Your task to perform on an android device: Do I have any events this weekend? Image 0: 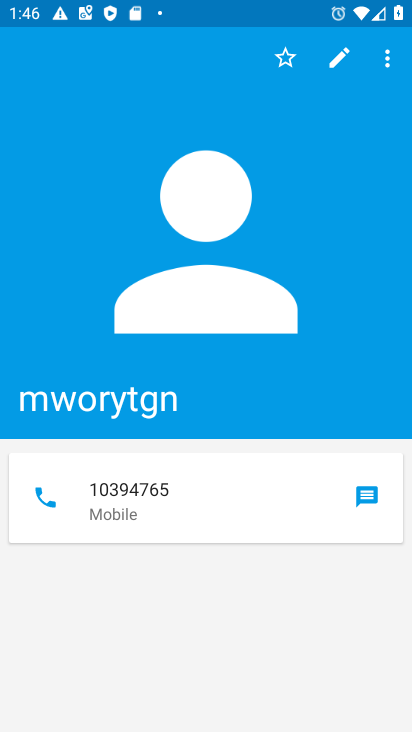
Step 0: press home button
Your task to perform on an android device: Do I have any events this weekend? Image 1: 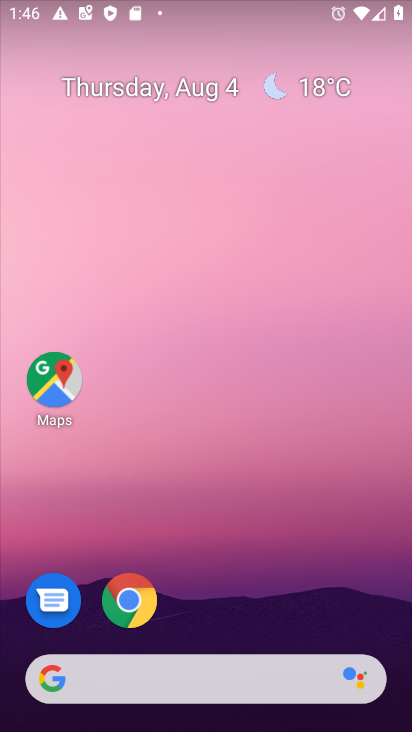
Step 1: drag from (99, 687) to (252, 199)
Your task to perform on an android device: Do I have any events this weekend? Image 2: 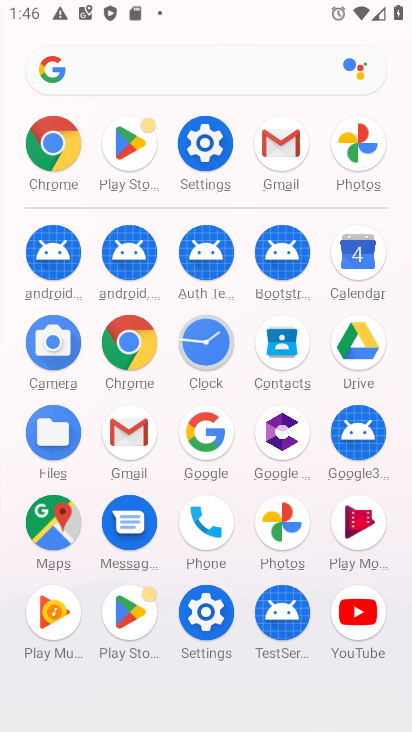
Step 2: click (362, 263)
Your task to perform on an android device: Do I have any events this weekend? Image 3: 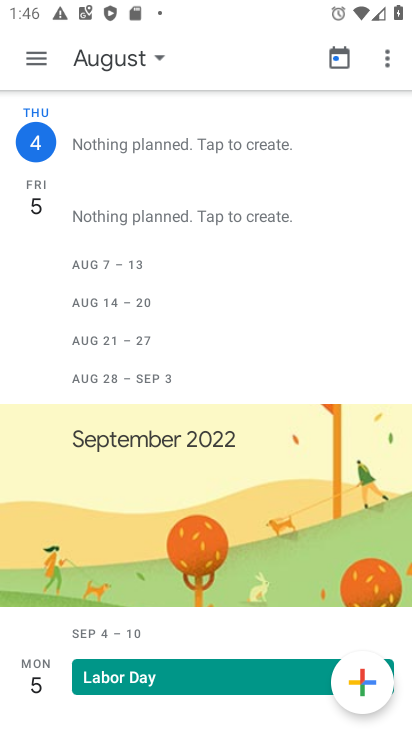
Step 3: click (126, 56)
Your task to perform on an android device: Do I have any events this weekend? Image 4: 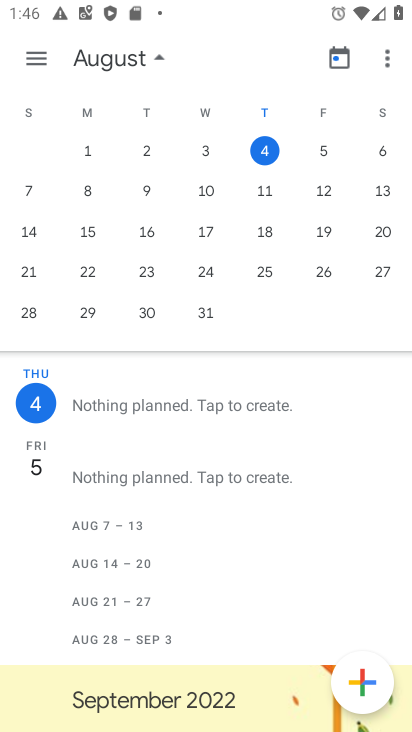
Step 4: click (385, 147)
Your task to perform on an android device: Do I have any events this weekend? Image 5: 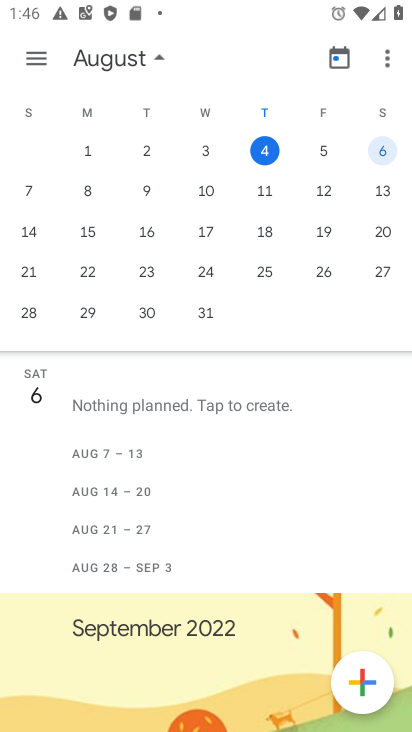
Step 5: click (37, 55)
Your task to perform on an android device: Do I have any events this weekend? Image 6: 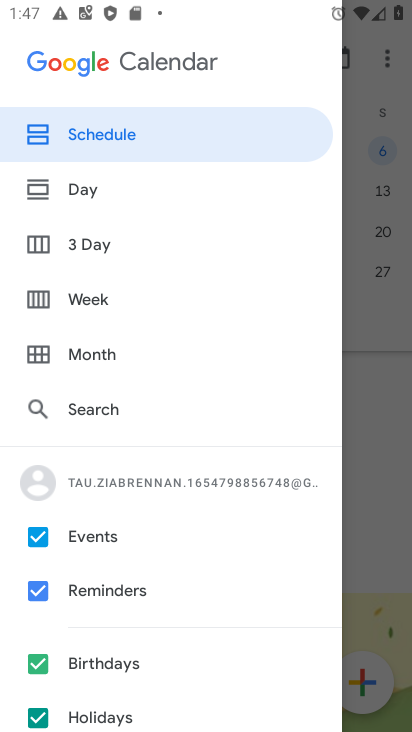
Step 6: click (66, 188)
Your task to perform on an android device: Do I have any events this weekend? Image 7: 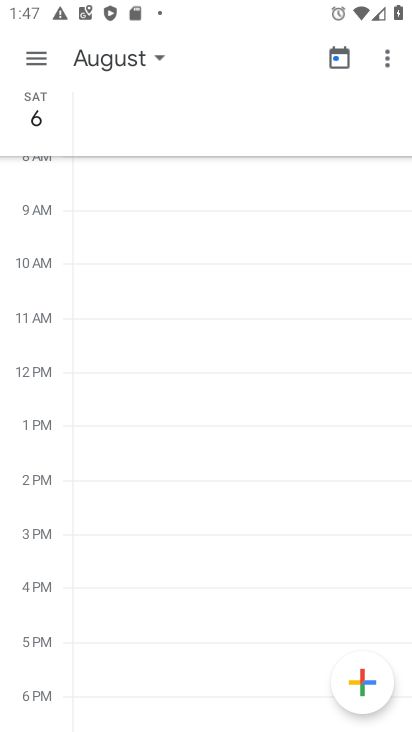
Step 7: click (37, 61)
Your task to perform on an android device: Do I have any events this weekend? Image 8: 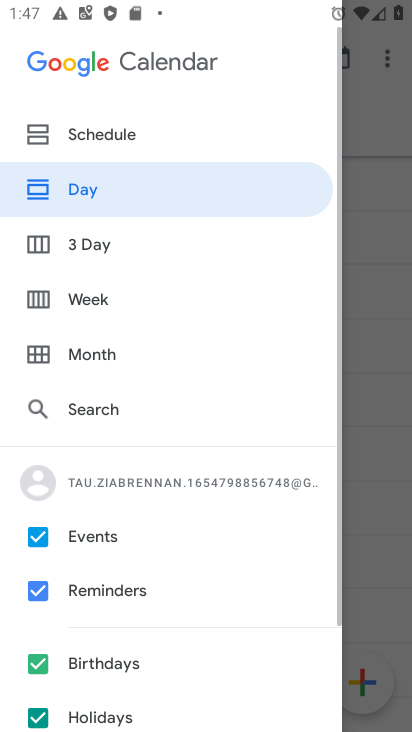
Step 8: click (102, 139)
Your task to perform on an android device: Do I have any events this weekend? Image 9: 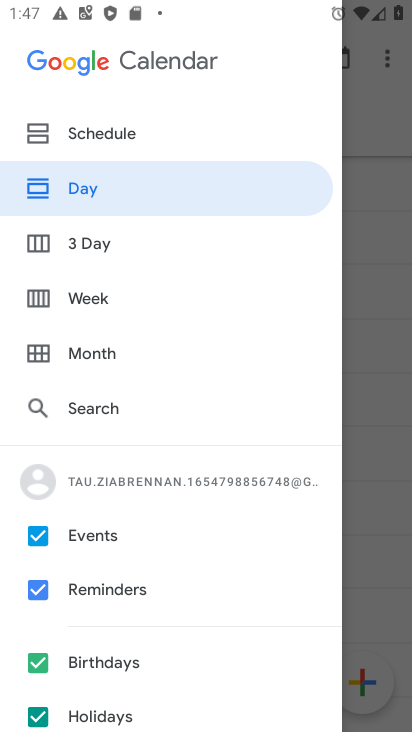
Step 9: click (102, 181)
Your task to perform on an android device: Do I have any events this weekend? Image 10: 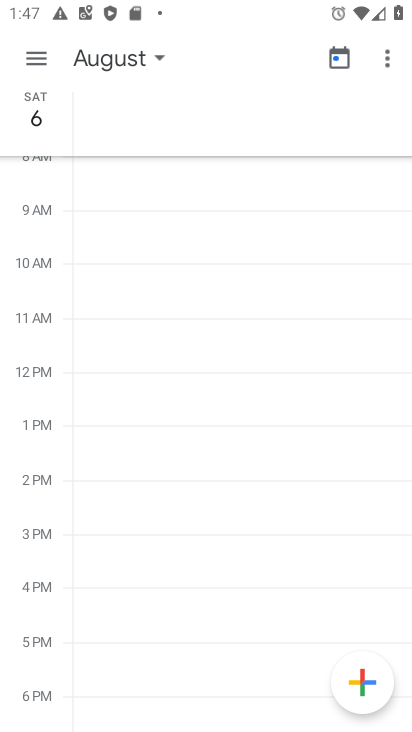
Step 10: task complete